Your task to perform on an android device: turn off location Image 0: 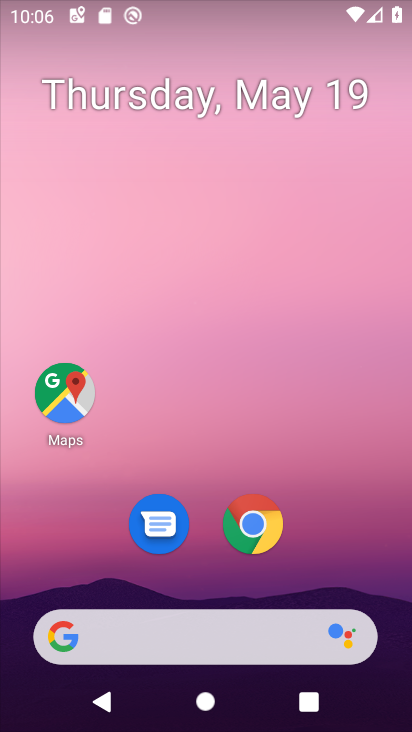
Step 0: drag from (239, 450) to (270, 43)
Your task to perform on an android device: turn off location Image 1: 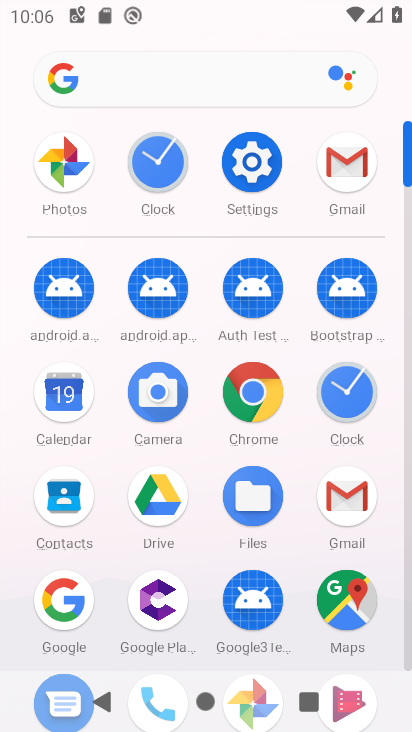
Step 1: click (260, 140)
Your task to perform on an android device: turn off location Image 2: 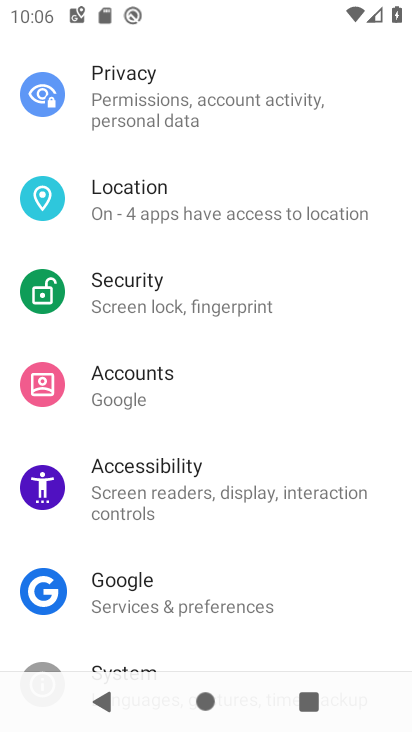
Step 2: click (231, 206)
Your task to perform on an android device: turn off location Image 3: 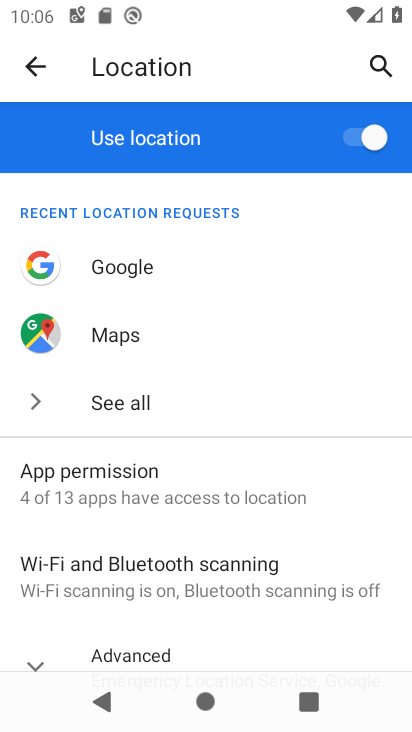
Step 3: click (355, 134)
Your task to perform on an android device: turn off location Image 4: 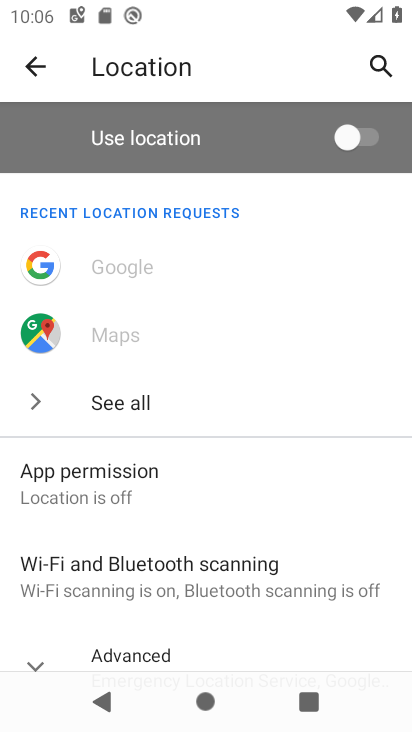
Step 4: task complete